Your task to perform on an android device: turn off smart reply in the gmail app Image 0: 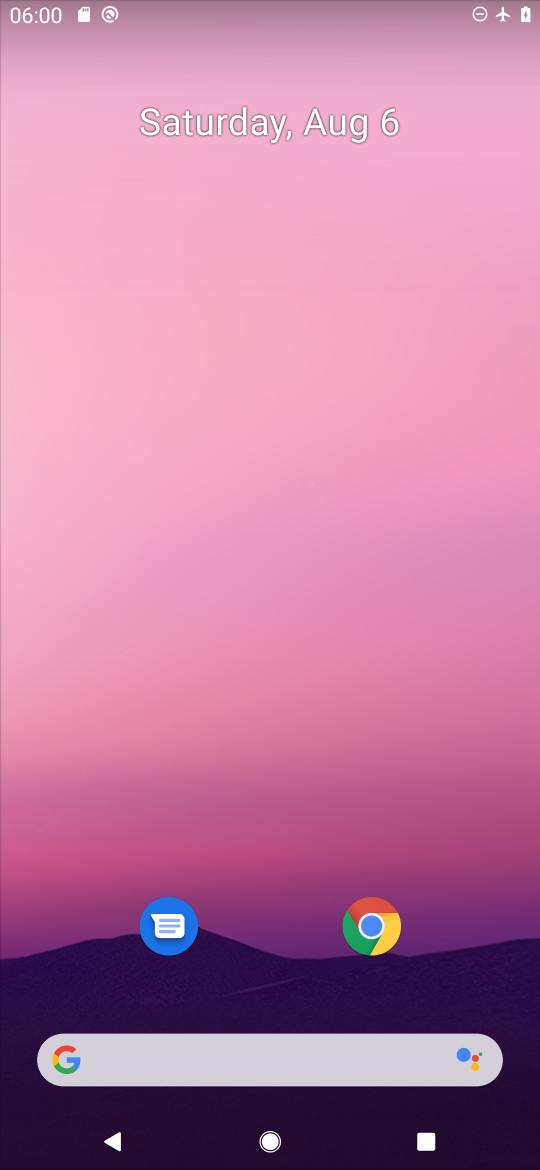
Step 0: drag from (277, 853) to (306, 200)
Your task to perform on an android device: turn off smart reply in the gmail app Image 1: 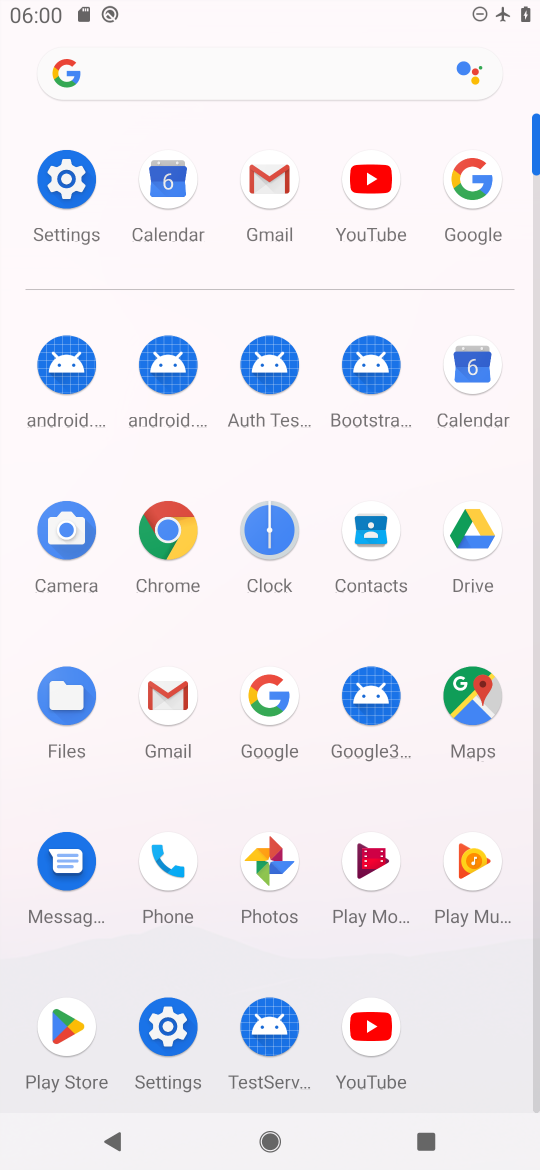
Step 1: click (285, 193)
Your task to perform on an android device: turn off smart reply in the gmail app Image 2: 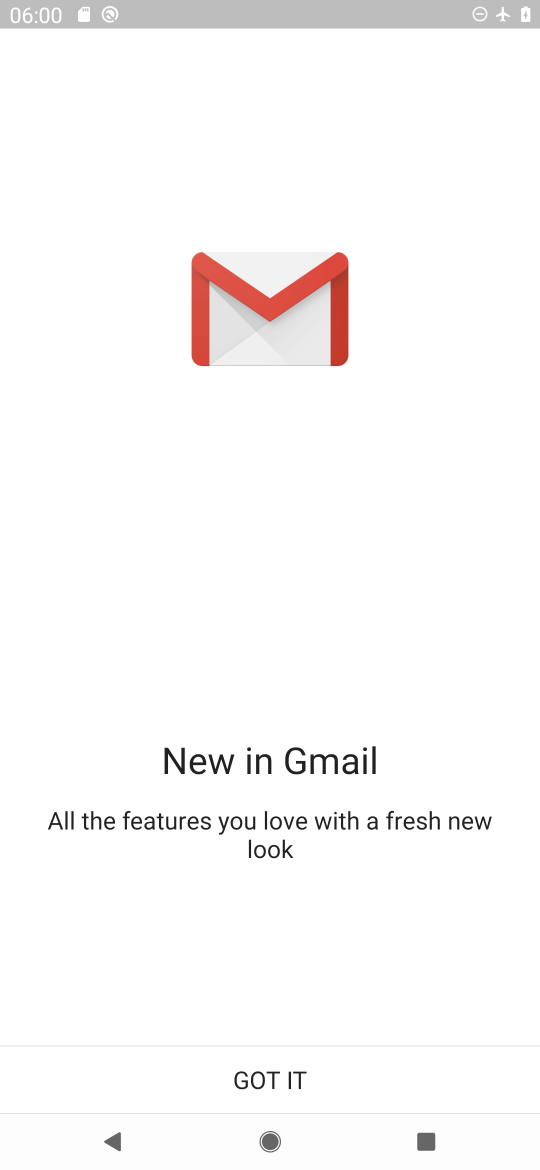
Step 2: click (307, 1076)
Your task to perform on an android device: turn off smart reply in the gmail app Image 3: 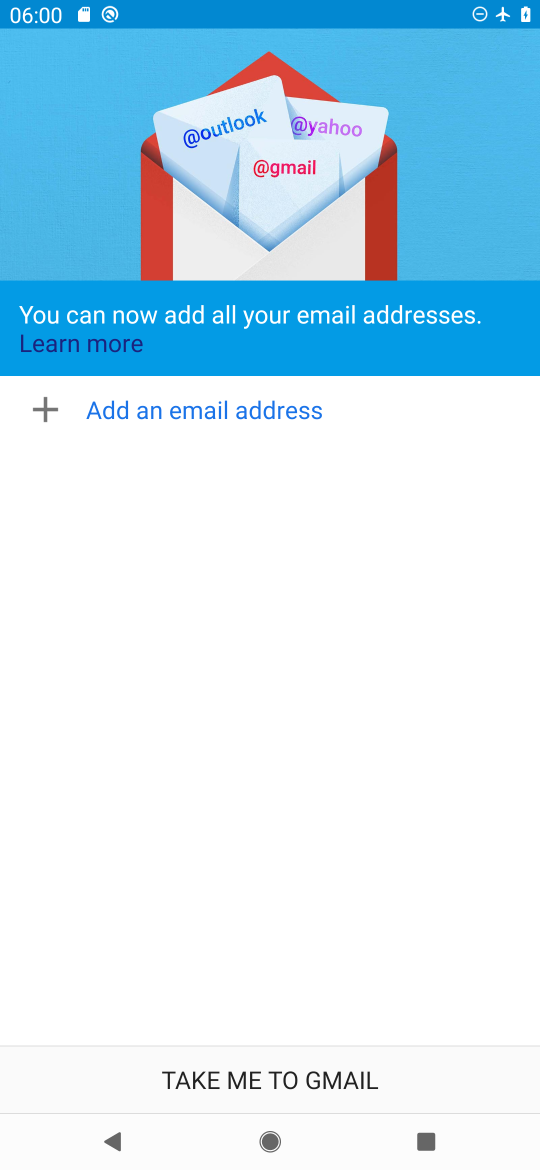
Step 3: click (307, 1076)
Your task to perform on an android device: turn off smart reply in the gmail app Image 4: 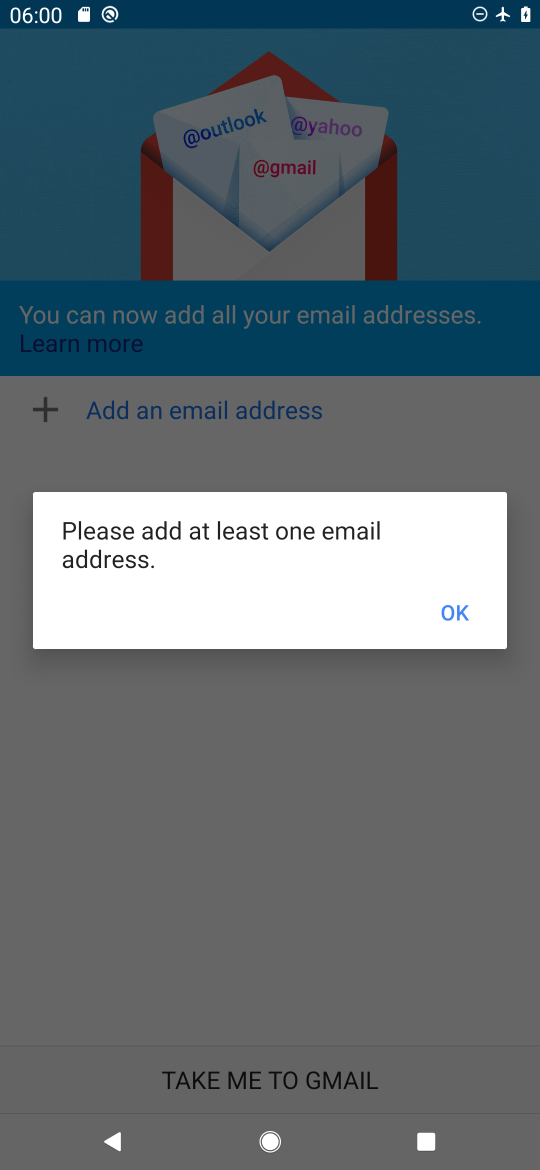
Step 4: task complete